Your task to perform on an android device: toggle wifi Image 0: 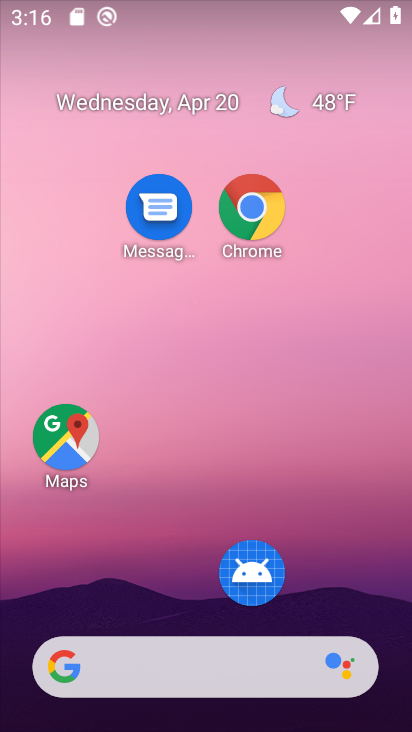
Step 0: drag from (268, 658) to (349, 129)
Your task to perform on an android device: toggle wifi Image 1: 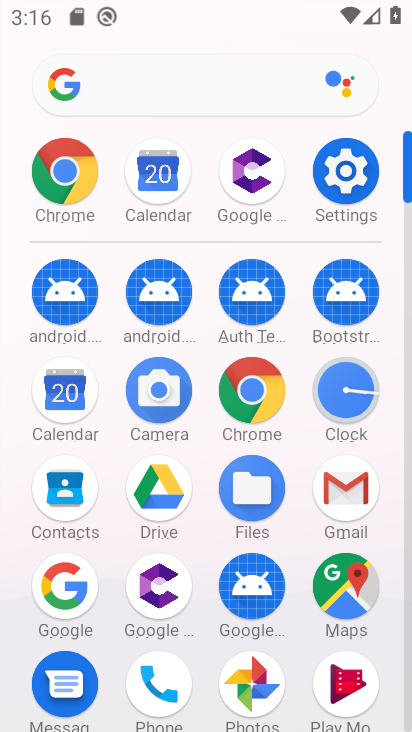
Step 1: click (344, 186)
Your task to perform on an android device: toggle wifi Image 2: 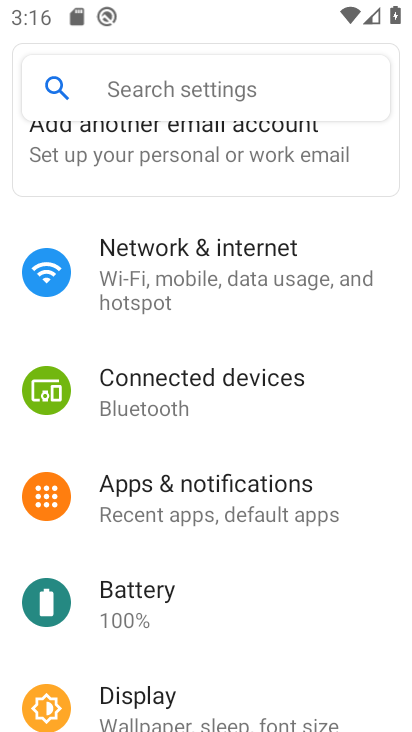
Step 2: click (276, 261)
Your task to perform on an android device: toggle wifi Image 3: 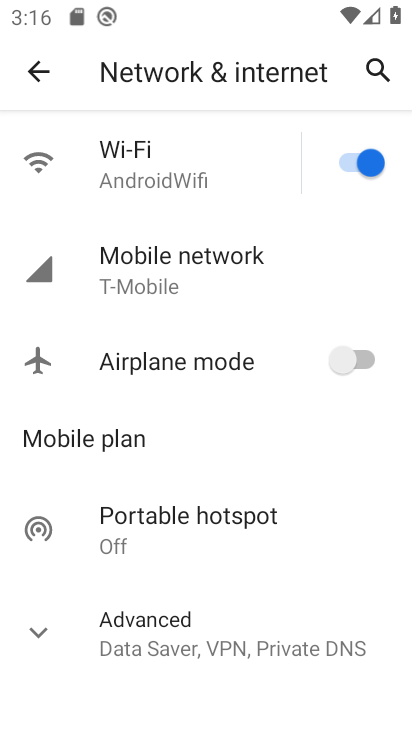
Step 3: click (350, 168)
Your task to perform on an android device: toggle wifi Image 4: 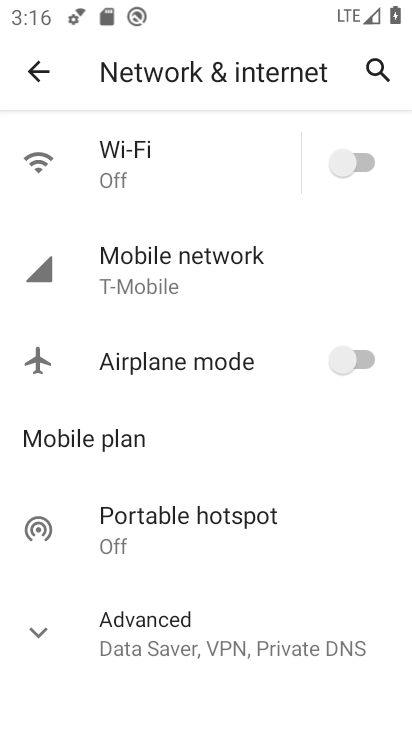
Step 4: task complete